Your task to perform on an android device: See recent photos Image 0: 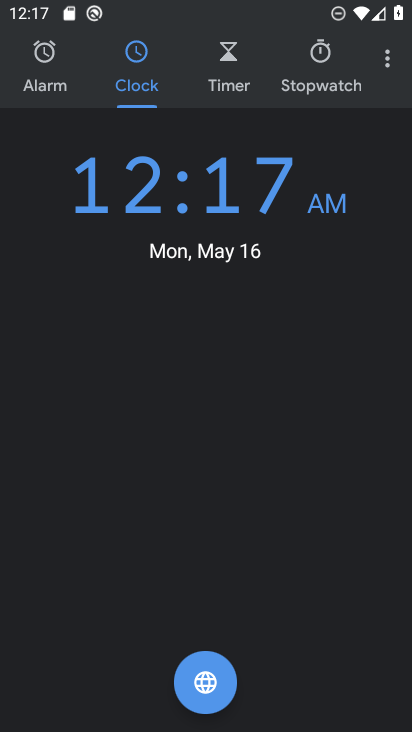
Step 0: press home button
Your task to perform on an android device: See recent photos Image 1: 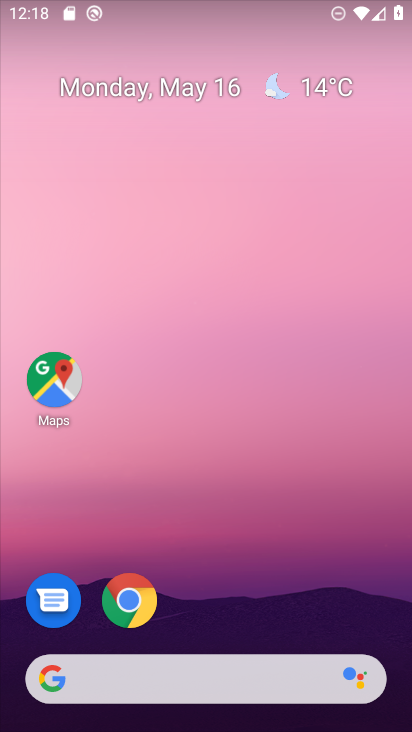
Step 1: drag from (210, 634) to (263, 78)
Your task to perform on an android device: See recent photos Image 2: 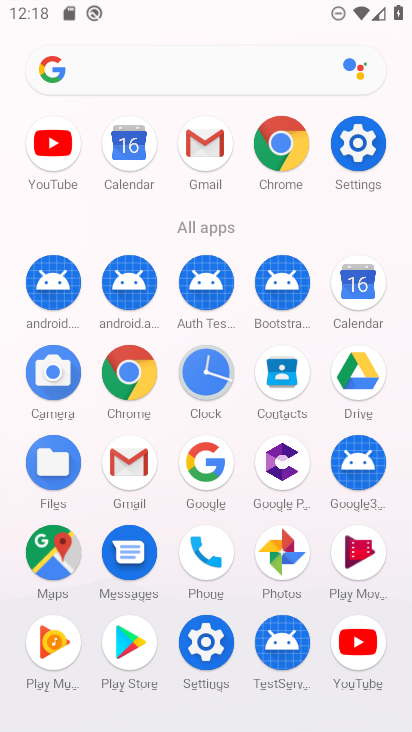
Step 2: click (277, 545)
Your task to perform on an android device: See recent photos Image 3: 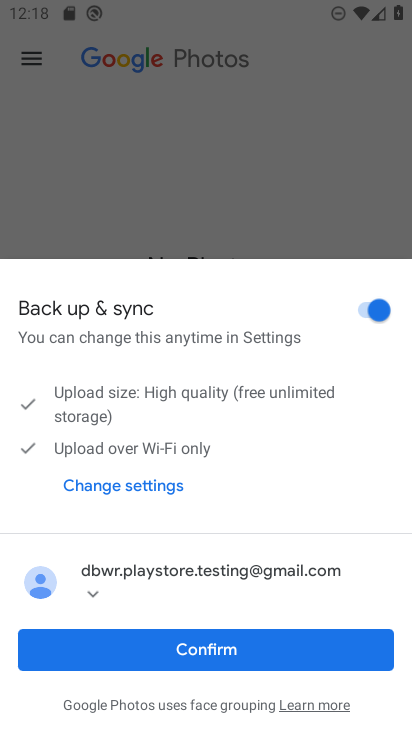
Step 3: click (210, 646)
Your task to perform on an android device: See recent photos Image 4: 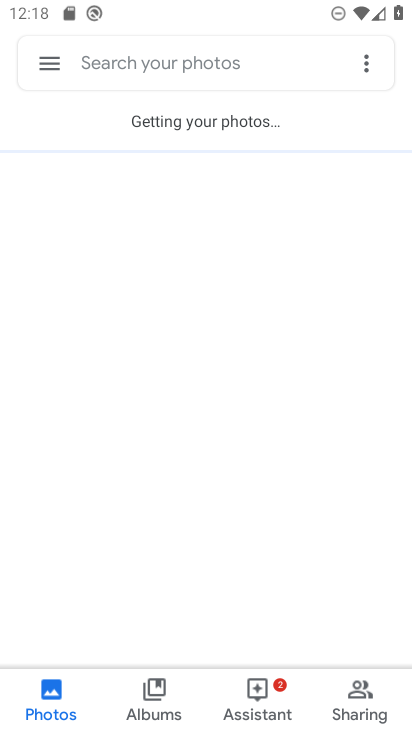
Step 4: task complete